Your task to perform on an android device: Search for Mexican restaurants on Maps Image 0: 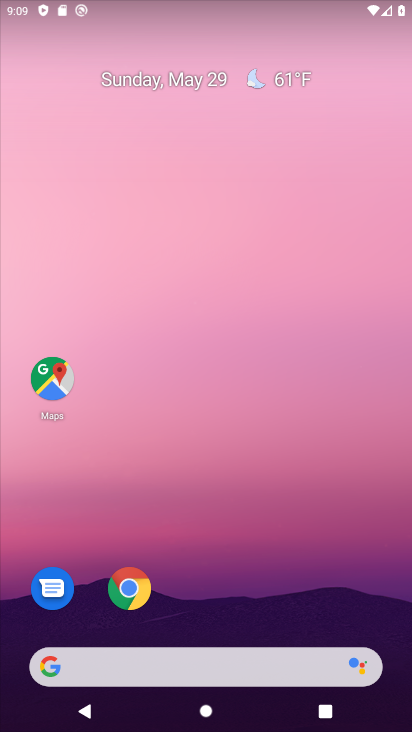
Step 0: drag from (309, 540) to (271, 54)
Your task to perform on an android device: Search for Mexican restaurants on Maps Image 1: 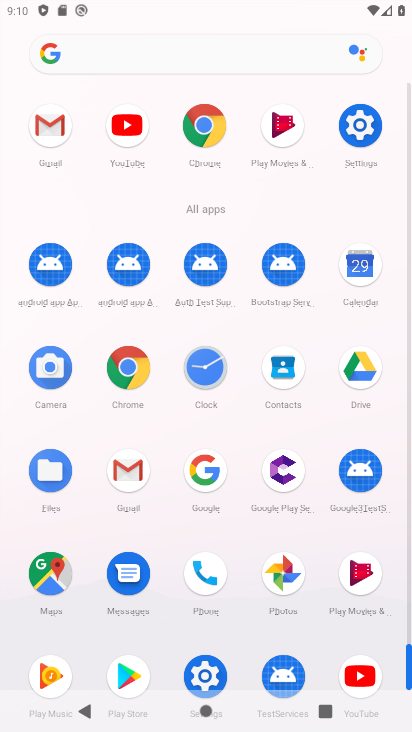
Step 1: drag from (327, 603) to (326, 314)
Your task to perform on an android device: Search for Mexican restaurants on Maps Image 2: 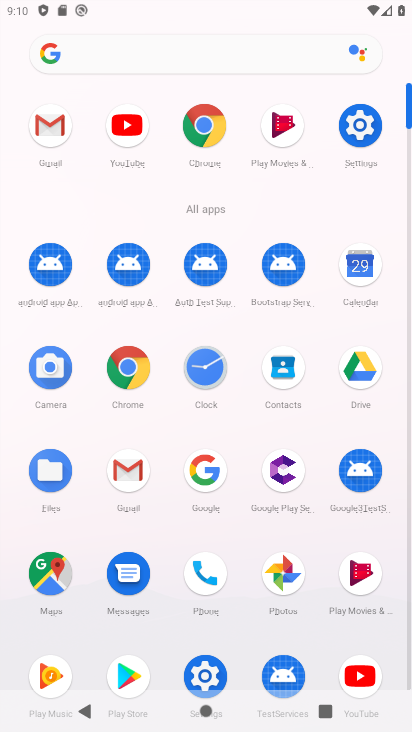
Step 2: click (42, 572)
Your task to perform on an android device: Search for Mexican restaurants on Maps Image 3: 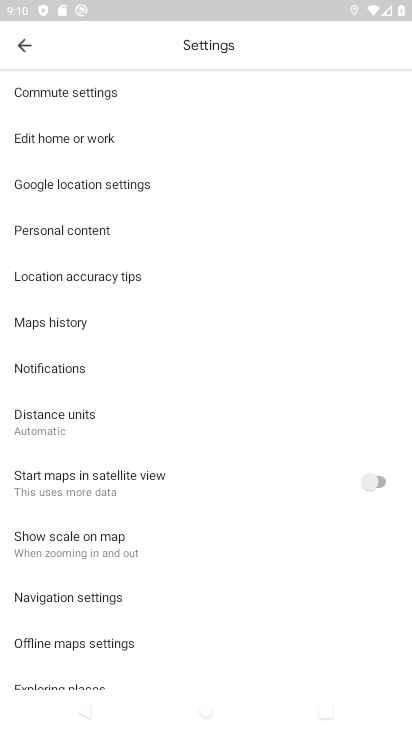
Step 3: click (19, 47)
Your task to perform on an android device: Search for Mexican restaurants on Maps Image 4: 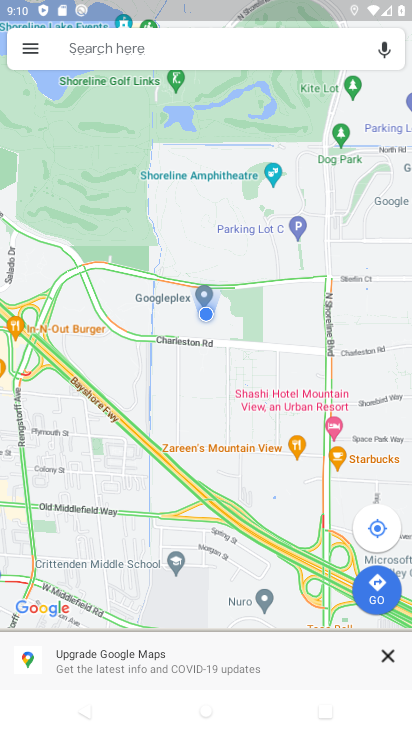
Step 4: click (25, 47)
Your task to perform on an android device: Search for Mexican restaurants on Maps Image 5: 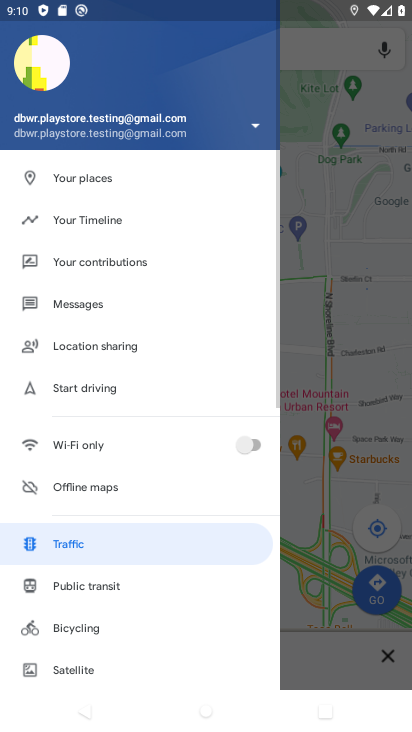
Step 5: click (346, 98)
Your task to perform on an android device: Search for Mexican restaurants on Maps Image 6: 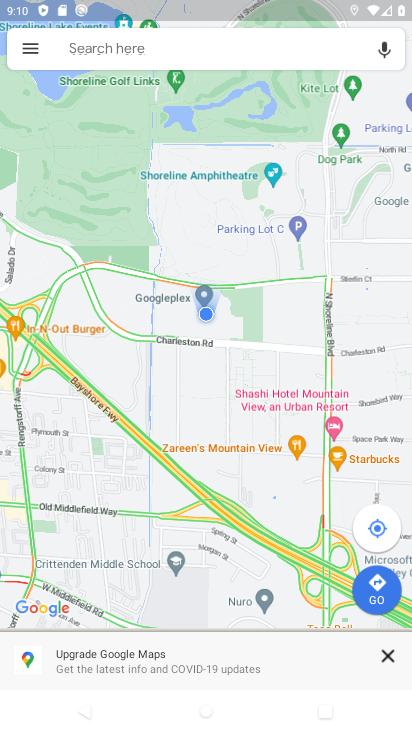
Step 6: click (319, 62)
Your task to perform on an android device: Search for Mexican restaurants on Maps Image 7: 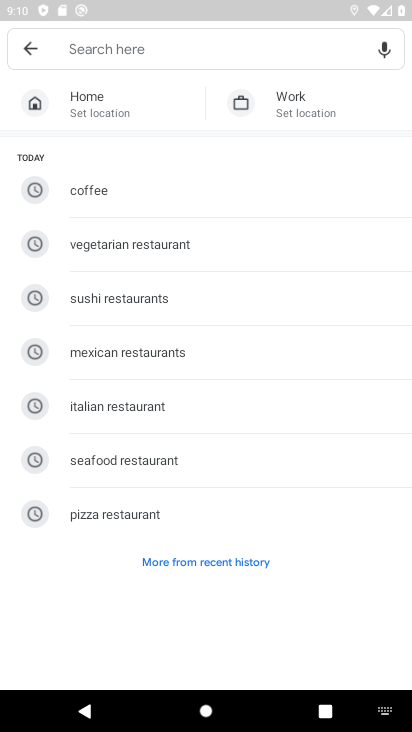
Step 7: click (151, 348)
Your task to perform on an android device: Search for Mexican restaurants on Maps Image 8: 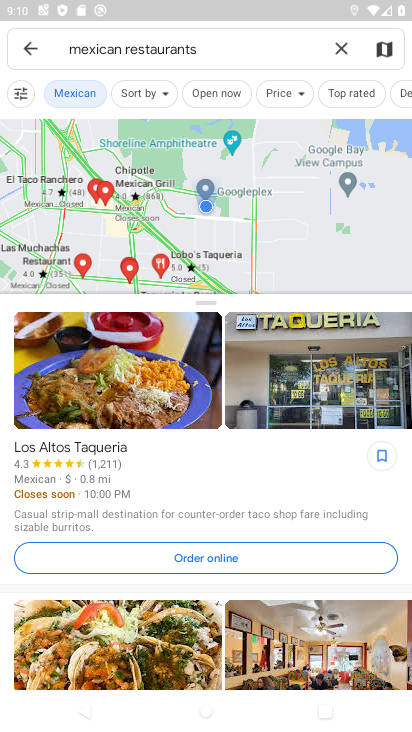
Step 8: task complete